Your task to perform on an android device: toggle wifi Image 0: 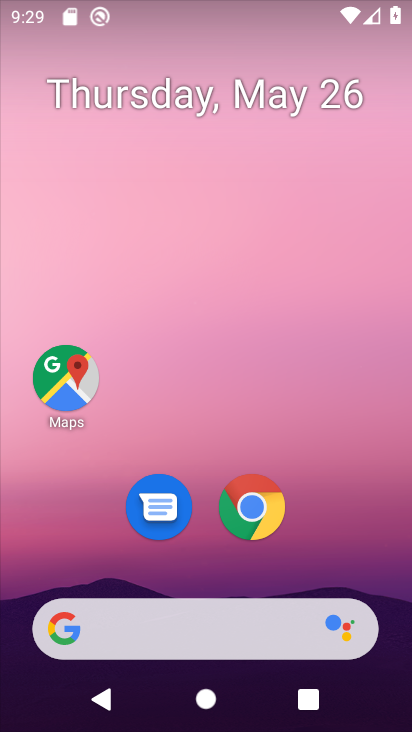
Step 0: drag from (361, 531) to (360, 216)
Your task to perform on an android device: toggle wifi Image 1: 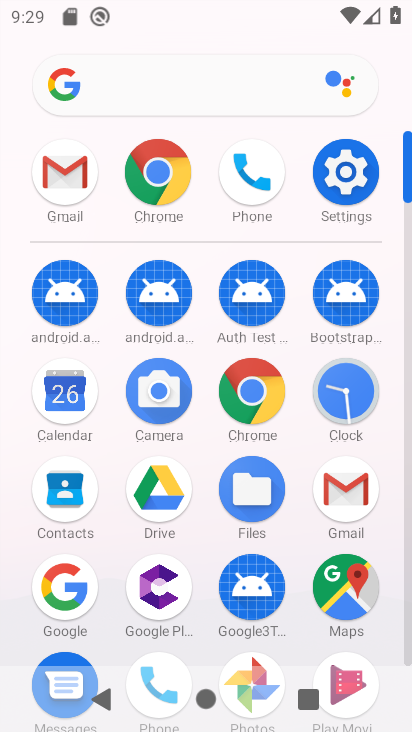
Step 1: click (342, 180)
Your task to perform on an android device: toggle wifi Image 2: 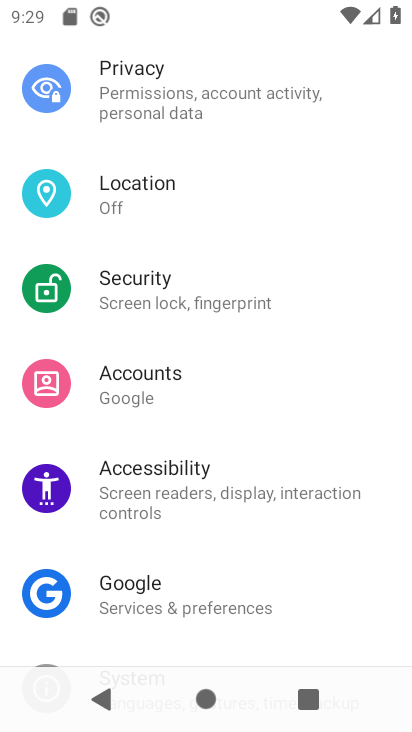
Step 2: drag from (332, 165) to (333, 297)
Your task to perform on an android device: toggle wifi Image 3: 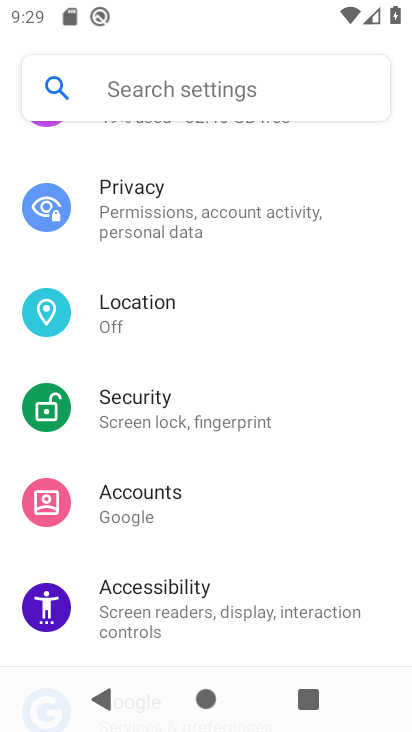
Step 3: drag from (335, 183) to (331, 374)
Your task to perform on an android device: toggle wifi Image 4: 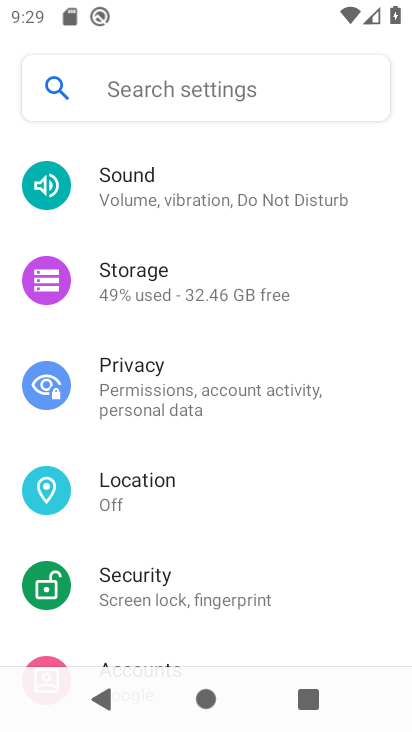
Step 4: drag from (365, 179) to (357, 403)
Your task to perform on an android device: toggle wifi Image 5: 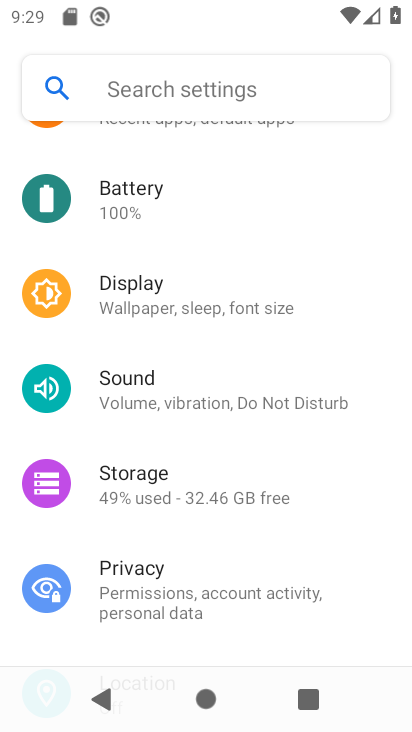
Step 5: drag from (347, 219) to (353, 401)
Your task to perform on an android device: toggle wifi Image 6: 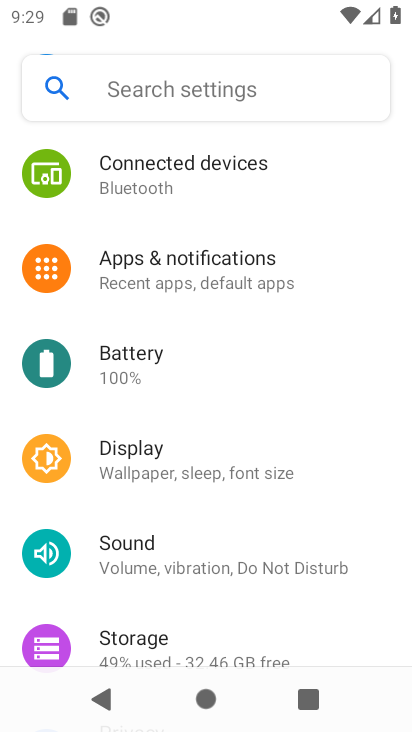
Step 6: drag from (344, 197) to (348, 372)
Your task to perform on an android device: toggle wifi Image 7: 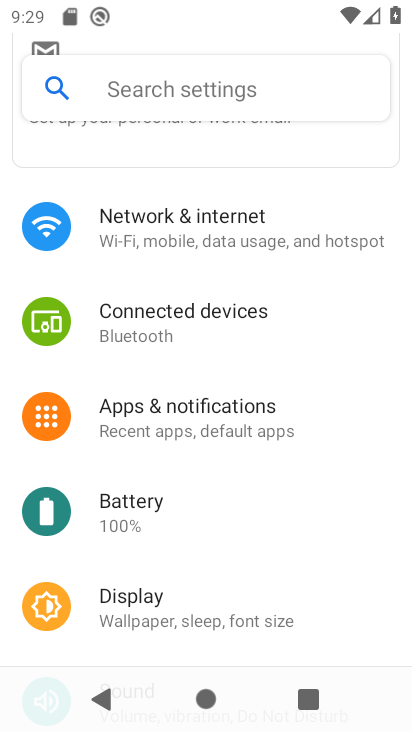
Step 7: drag from (355, 505) to (355, 361)
Your task to perform on an android device: toggle wifi Image 8: 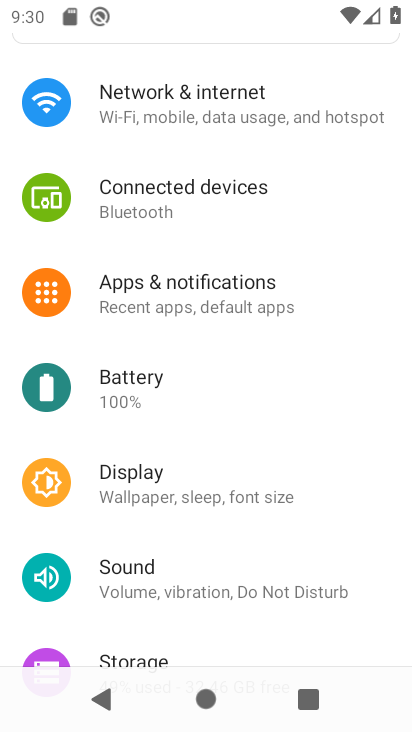
Step 8: drag from (351, 521) to (351, 394)
Your task to perform on an android device: toggle wifi Image 9: 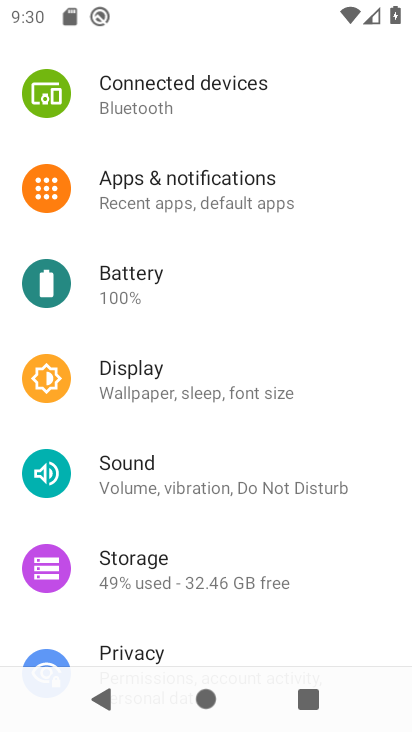
Step 9: drag from (342, 548) to (347, 404)
Your task to perform on an android device: toggle wifi Image 10: 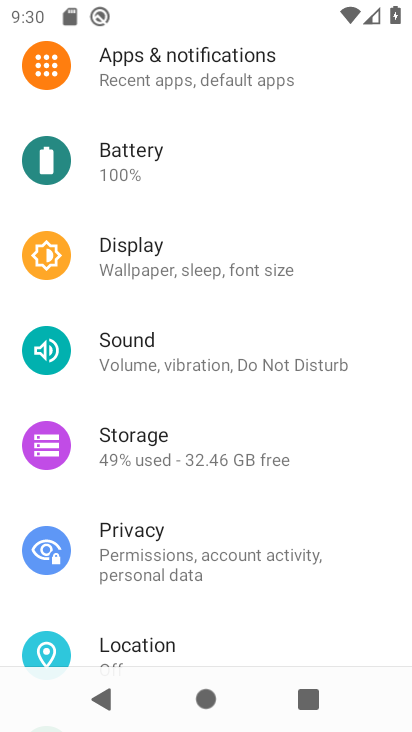
Step 10: drag from (335, 257) to (332, 461)
Your task to perform on an android device: toggle wifi Image 11: 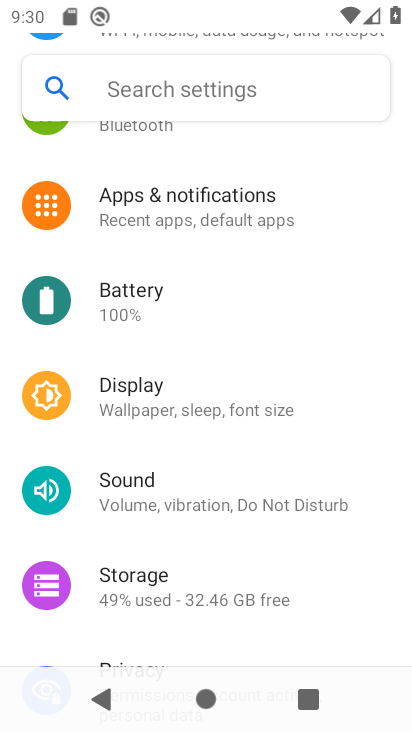
Step 11: drag from (329, 210) to (332, 395)
Your task to perform on an android device: toggle wifi Image 12: 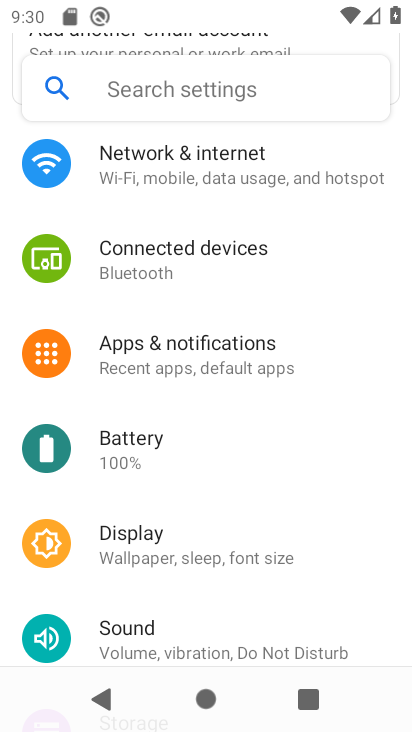
Step 12: drag from (340, 216) to (336, 393)
Your task to perform on an android device: toggle wifi Image 13: 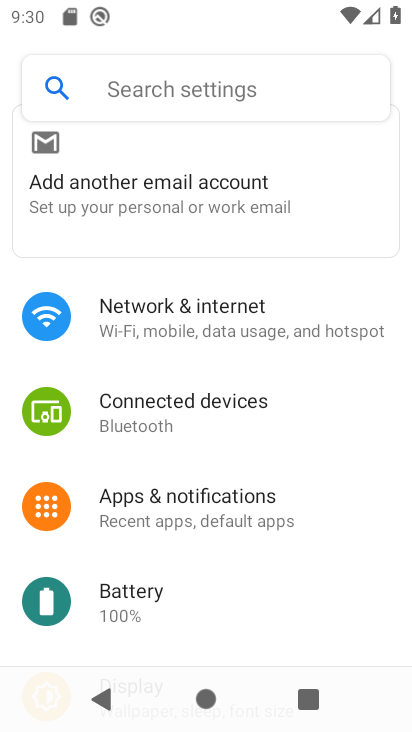
Step 13: drag from (343, 454) to (356, 330)
Your task to perform on an android device: toggle wifi Image 14: 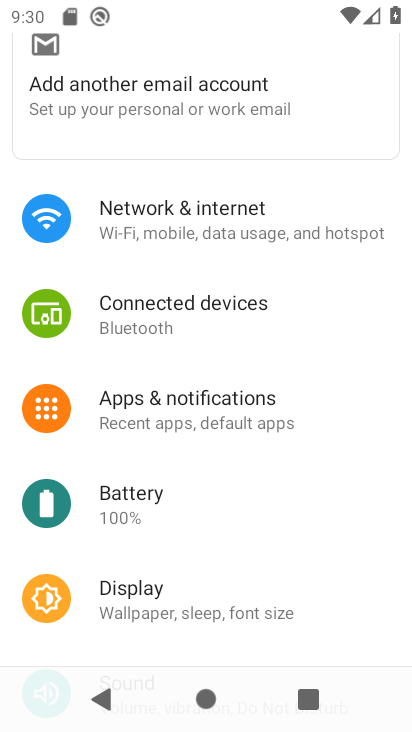
Step 14: drag from (356, 503) to (353, 374)
Your task to perform on an android device: toggle wifi Image 15: 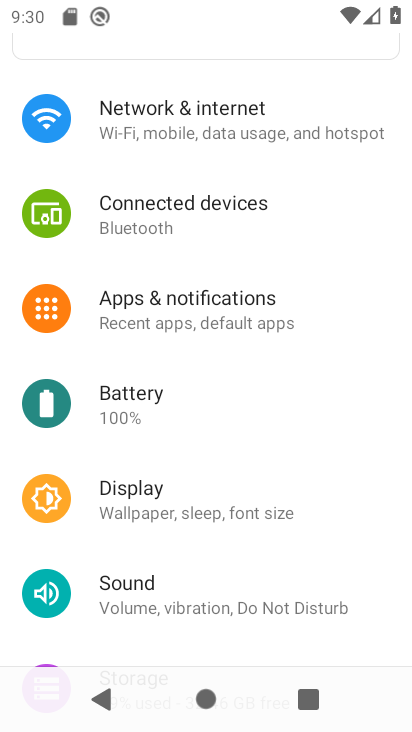
Step 15: drag from (331, 211) to (338, 435)
Your task to perform on an android device: toggle wifi Image 16: 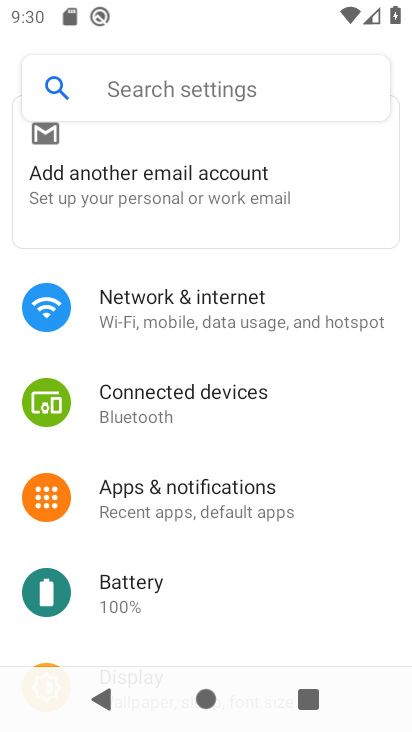
Step 16: click (245, 295)
Your task to perform on an android device: toggle wifi Image 17: 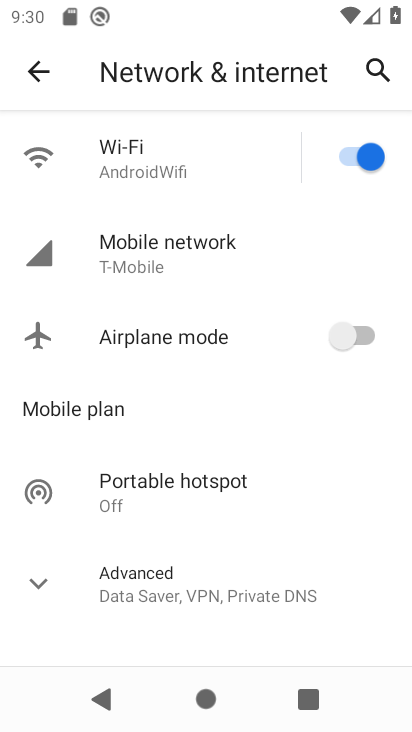
Step 17: drag from (308, 530) to (309, 360)
Your task to perform on an android device: toggle wifi Image 18: 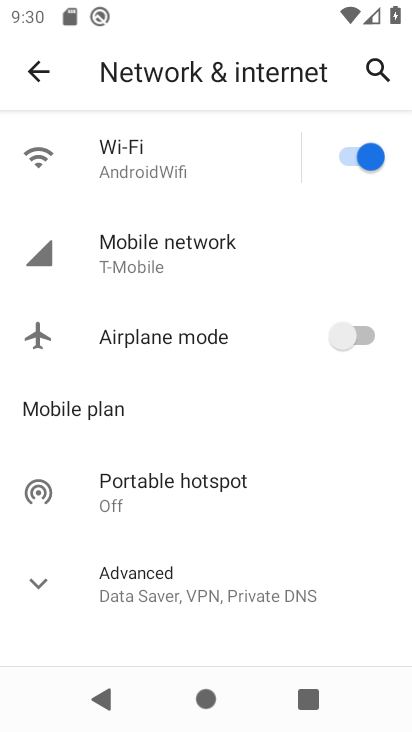
Step 18: drag from (294, 265) to (293, 449)
Your task to perform on an android device: toggle wifi Image 19: 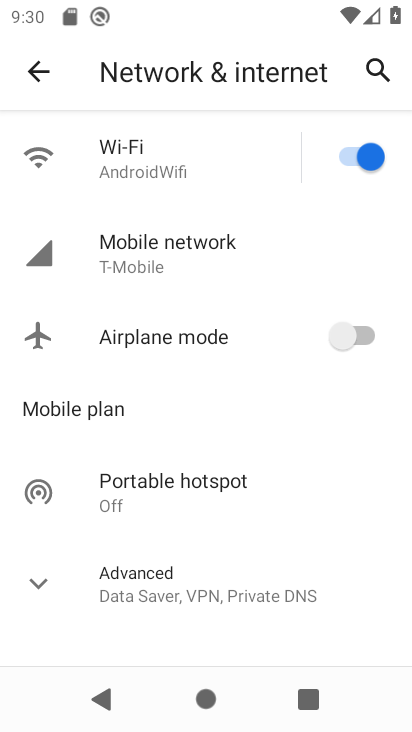
Step 19: click (361, 157)
Your task to perform on an android device: toggle wifi Image 20: 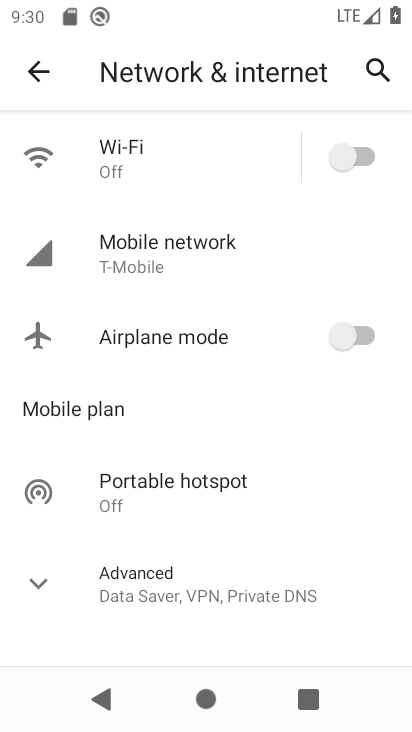
Step 20: task complete